Your task to perform on an android device: turn off wifi Image 0: 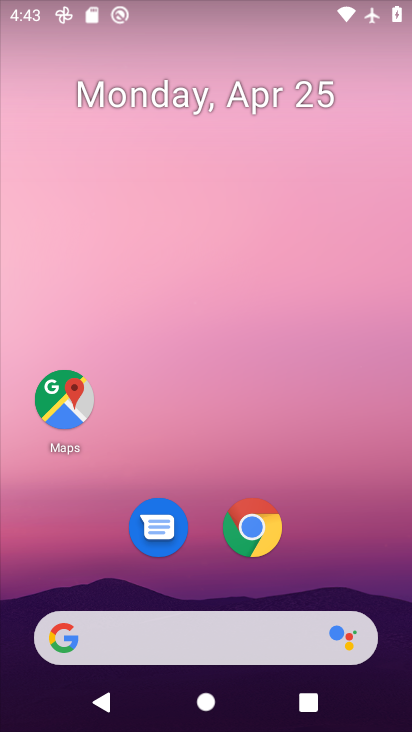
Step 0: drag from (380, 594) to (311, 121)
Your task to perform on an android device: turn off wifi Image 1: 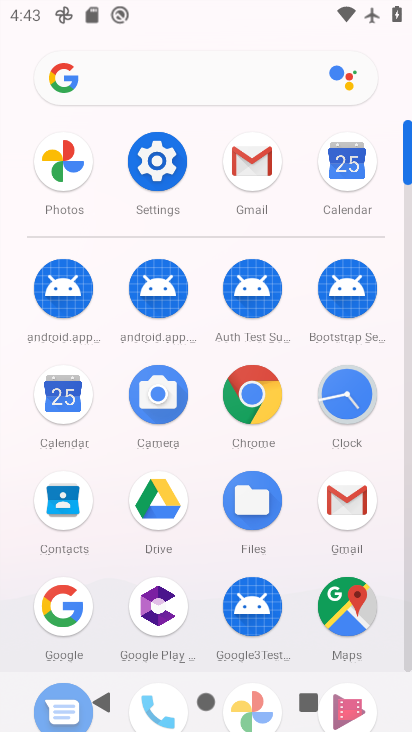
Step 1: click (407, 651)
Your task to perform on an android device: turn off wifi Image 2: 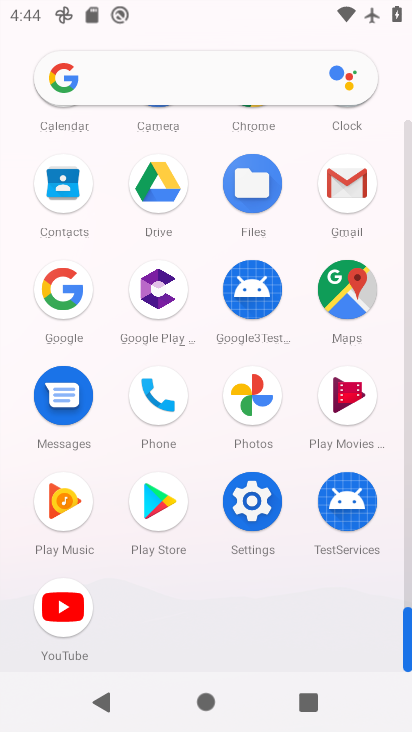
Step 2: click (248, 501)
Your task to perform on an android device: turn off wifi Image 3: 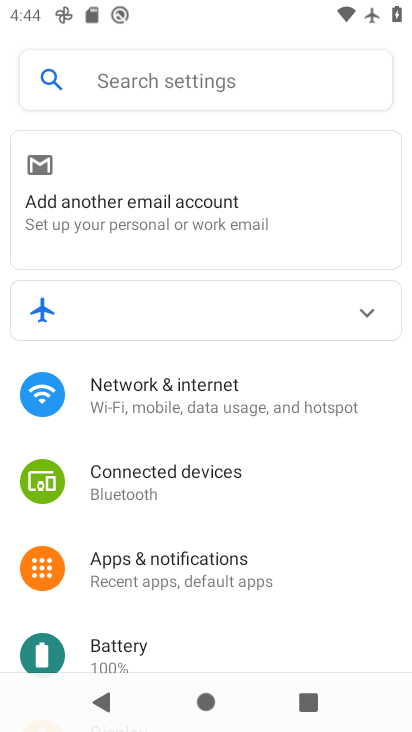
Step 3: click (139, 381)
Your task to perform on an android device: turn off wifi Image 4: 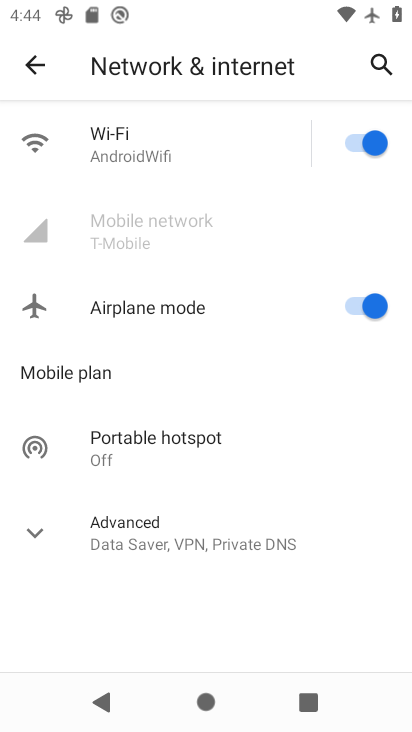
Step 4: click (346, 138)
Your task to perform on an android device: turn off wifi Image 5: 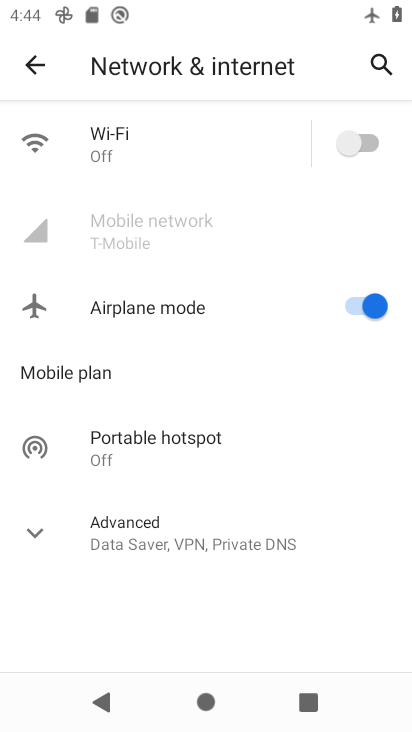
Step 5: task complete